Your task to perform on an android device: refresh tabs in the chrome app Image 0: 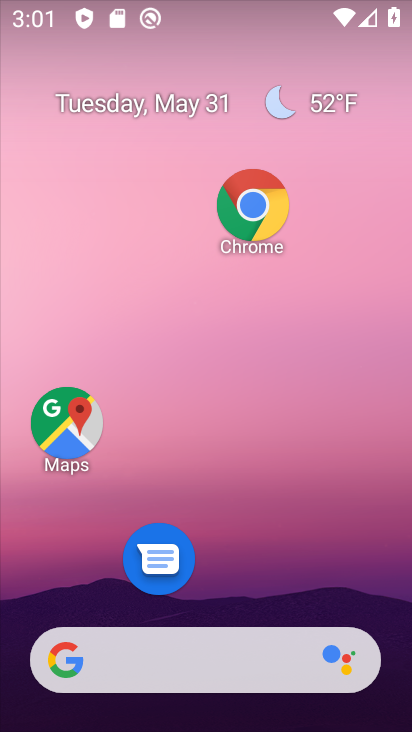
Step 0: click (249, 214)
Your task to perform on an android device: refresh tabs in the chrome app Image 1: 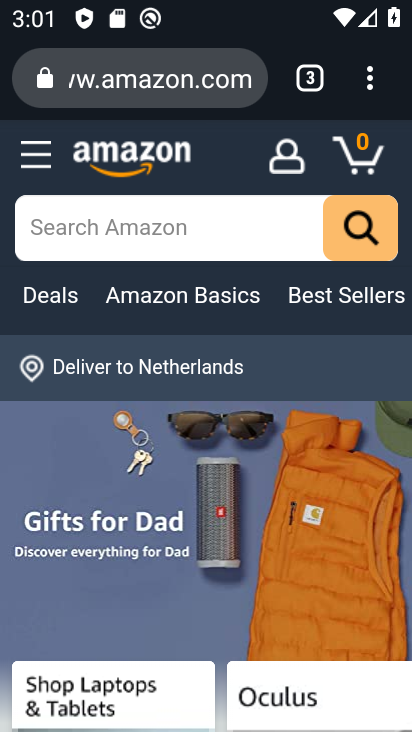
Step 1: click (374, 72)
Your task to perform on an android device: refresh tabs in the chrome app Image 2: 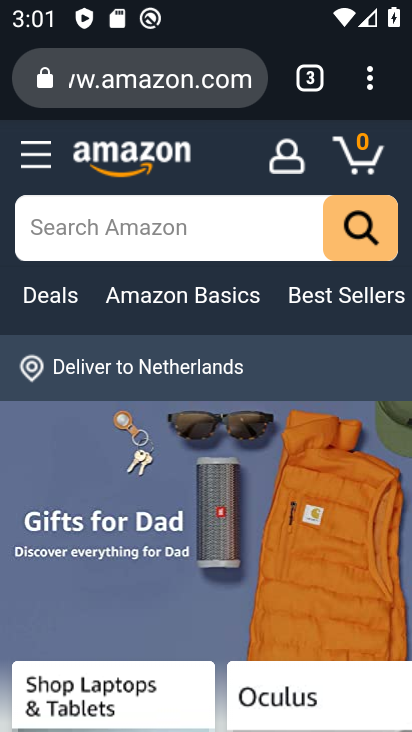
Step 2: task complete